Your task to perform on an android device: Turn on the flashlight Image 0: 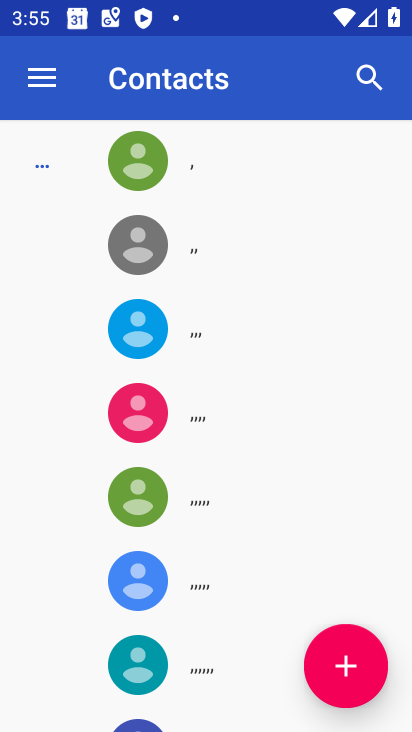
Step 0: press back button
Your task to perform on an android device: Turn on the flashlight Image 1: 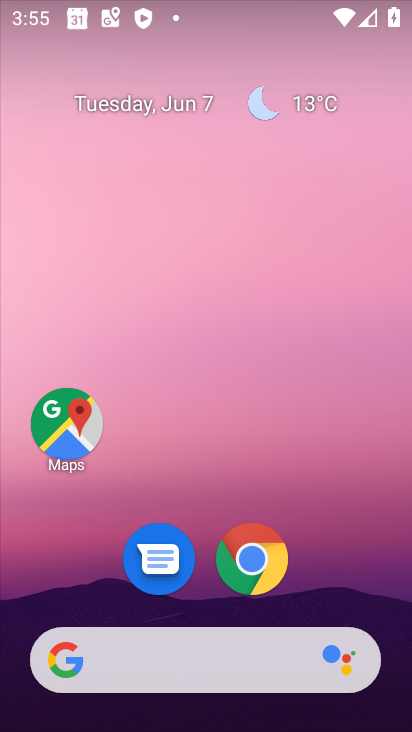
Step 1: drag from (326, 558) to (239, 146)
Your task to perform on an android device: Turn on the flashlight Image 2: 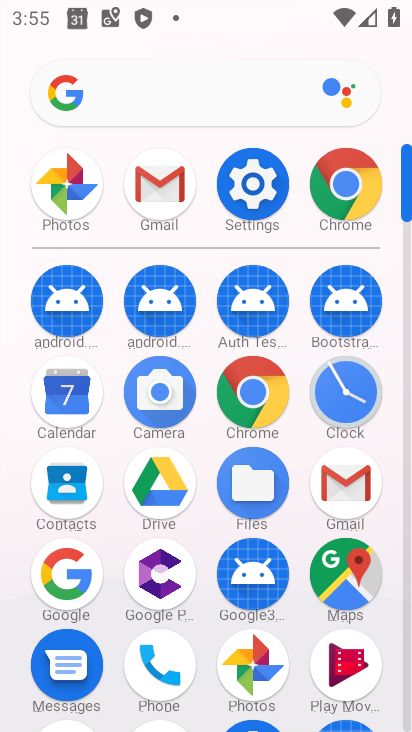
Step 2: click (256, 182)
Your task to perform on an android device: Turn on the flashlight Image 3: 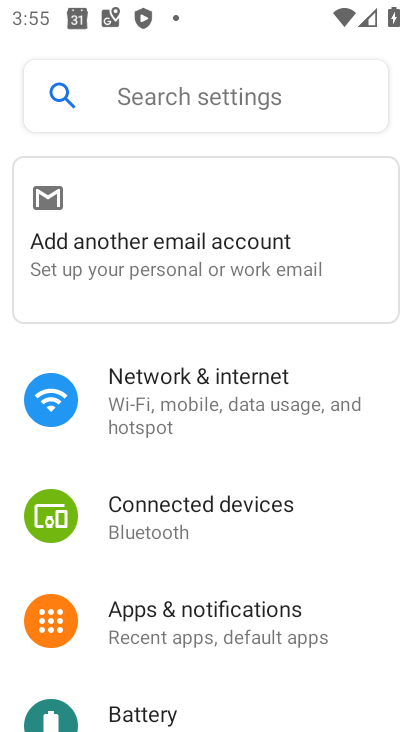
Step 3: drag from (135, 581) to (189, 396)
Your task to perform on an android device: Turn on the flashlight Image 4: 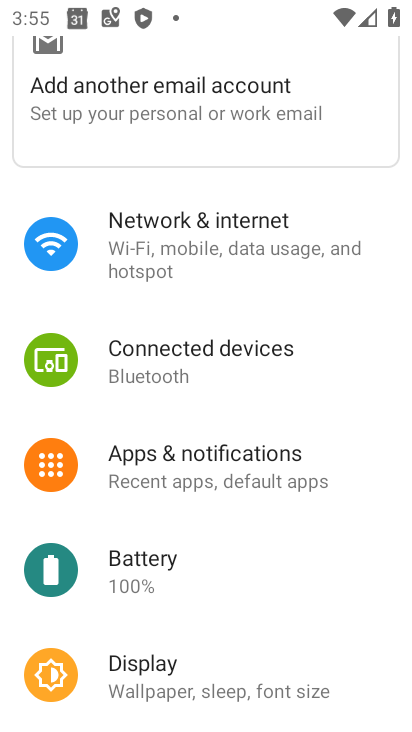
Step 4: click (183, 664)
Your task to perform on an android device: Turn on the flashlight Image 5: 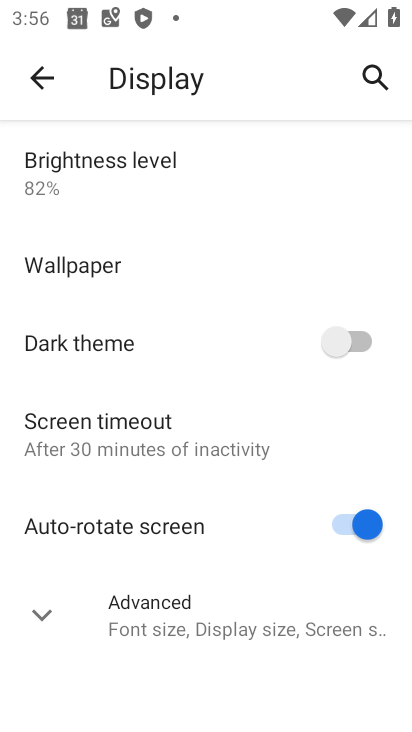
Step 5: click (198, 616)
Your task to perform on an android device: Turn on the flashlight Image 6: 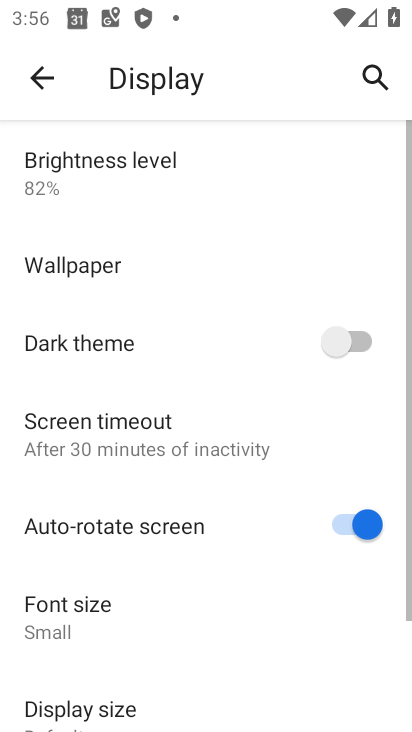
Step 6: task complete